Your task to perform on an android device: Open the phone app and click the voicemail tab. Image 0: 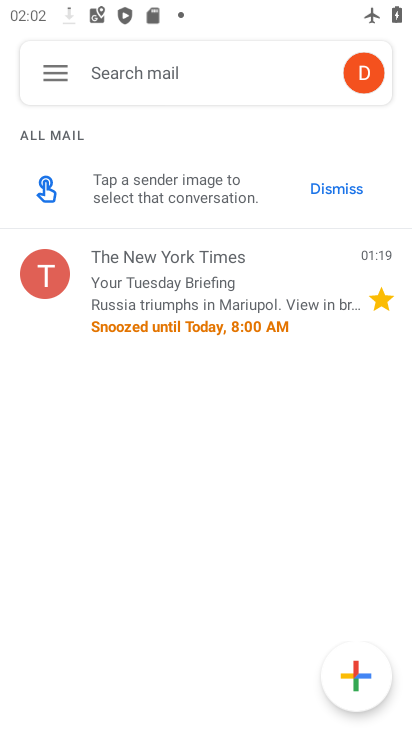
Step 0: press home button
Your task to perform on an android device: Open the phone app and click the voicemail tab. Image 1: 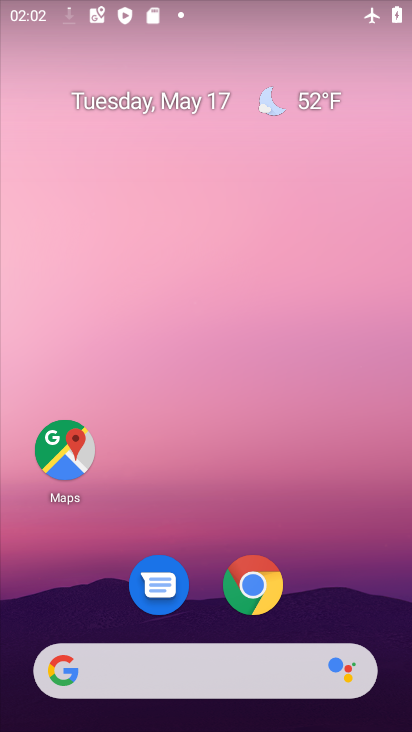
Step 1: drag from (268, 517) to (251, 28)
Your task to perform on an android device: Open the phone app and click the voicemail tab. Image 2: 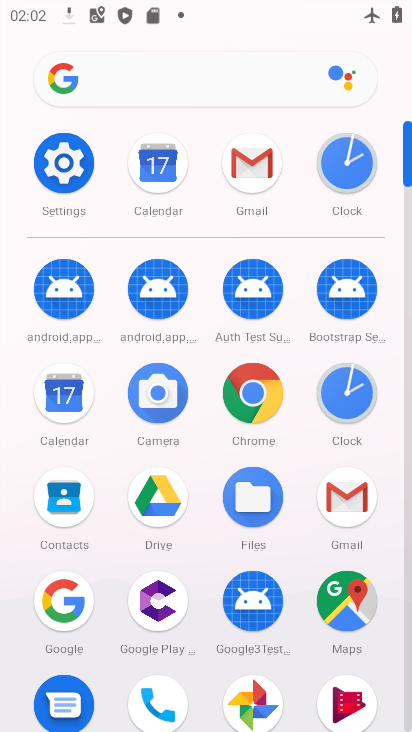
Step 2: drag from (214, 525) to (233, 260)
Your task to perform on an android device: Open the phone app and click the voicemail tab. Image 3: 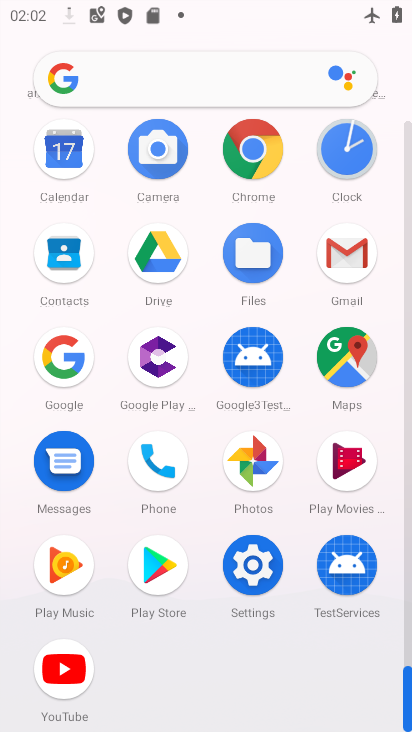
Step 3: click (163, 459)
Your task to perform on an android device: Open the phone app and click the voicemail tab. Image 4: 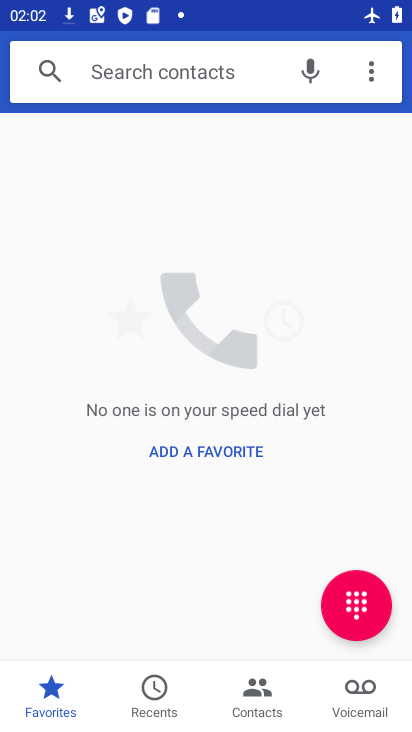
Step 4: click (355, 690)
Your task to perform on an android device: Open the phone app and click the voicemail tab. Image 5: 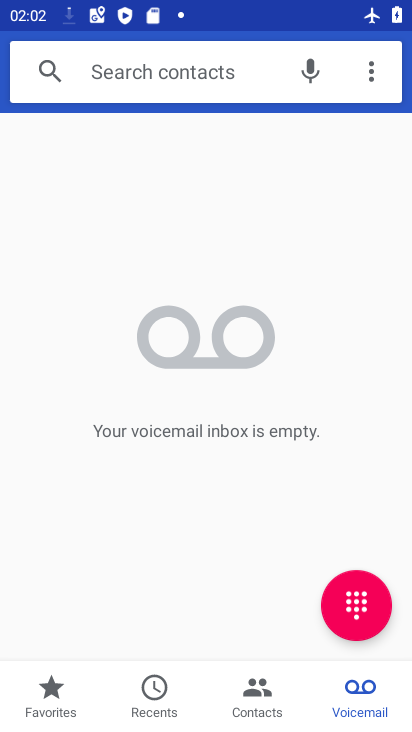
Step 5: task complete